Your task to perform on an android device: set the timer Image 0: 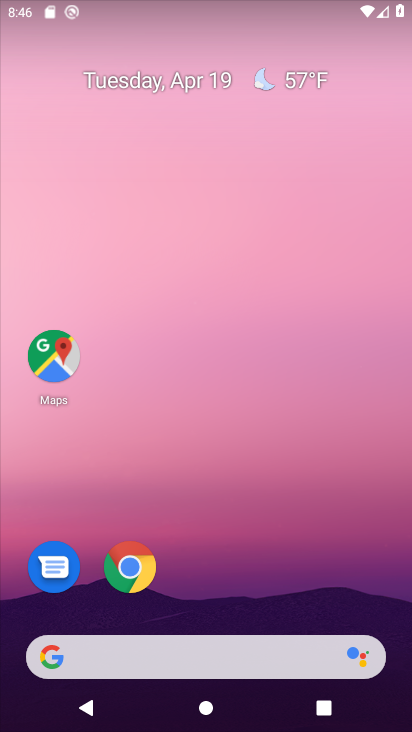
Step 0: drag from (280, 545) to (326, 80)
Your task to perform on an android device: set the timer Image 1: 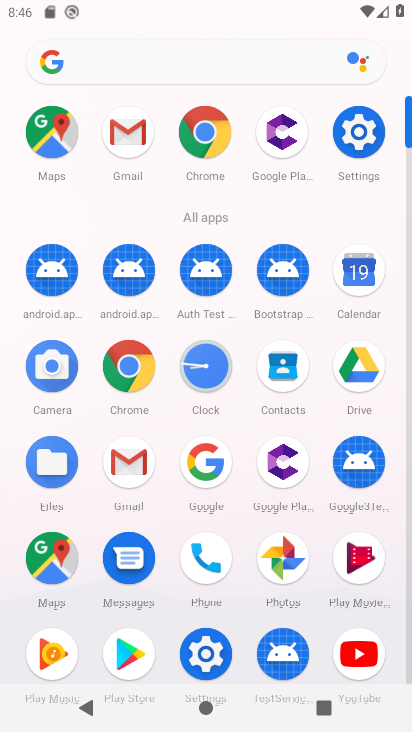
Step 1: click (212, 350)
Your task to perform on an android device: set the timer Image 2: 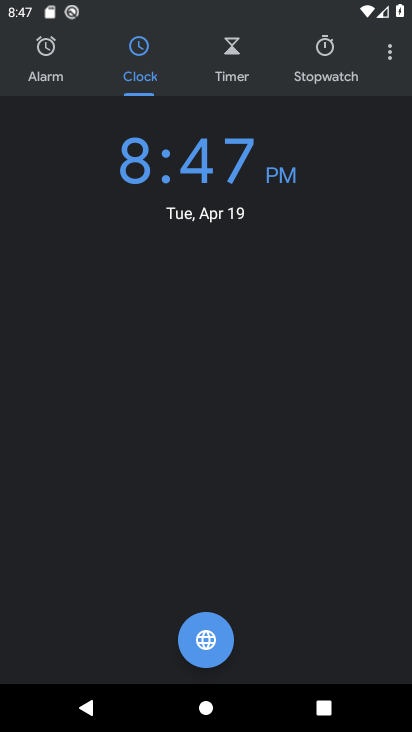
Step 2: click (234, 55)
Your task to perform on an android device: set the timer Image 3: 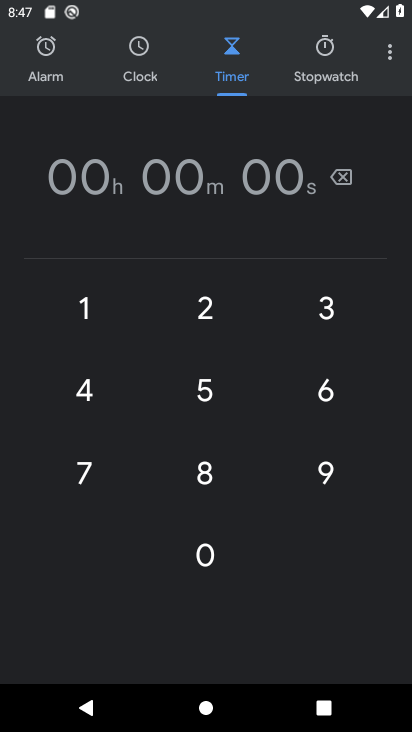
Step 3: click (198, 461)
Your task to perform on an android device: set the timer Image 4: 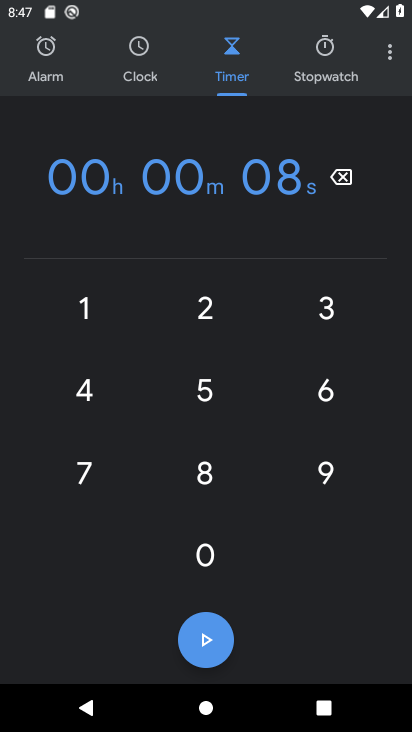
Step 4: click (218, 303)
Your task to perform on an android device: set the timer Image 5: 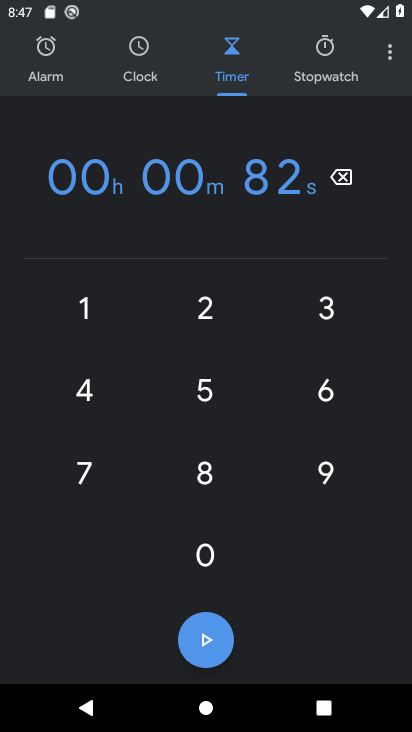
Step 5: click (190, 401)
Your task to perform on an android device: set the timer Image 6: 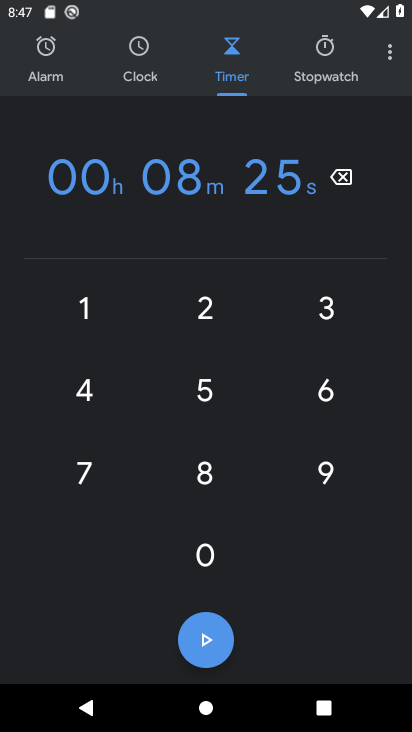
Step 6: click (219, 463)
Your task to perform on an android device: set the timer Image 7: 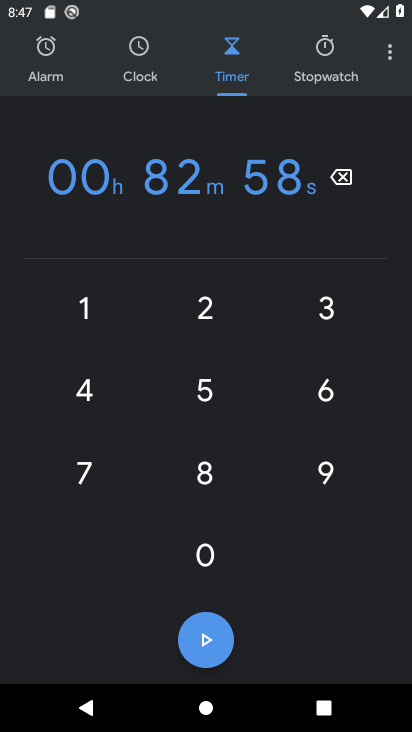
Step 7: click (337, 293)
Your task to perform on an android device: set the timer Image 8: 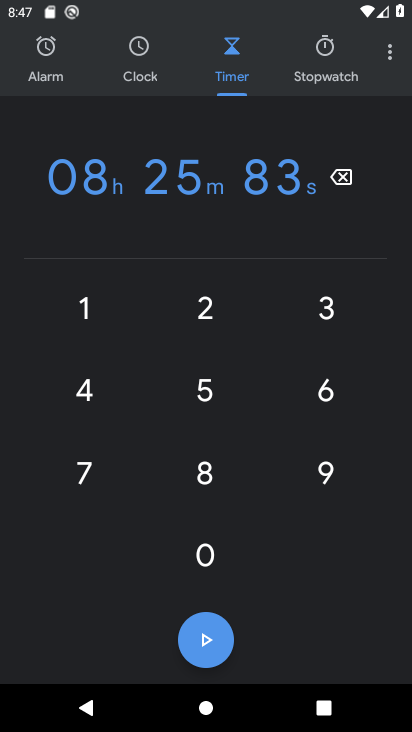
Step 8: click (100, 316)
Your task to perform on an android device: set the timer Image 9: 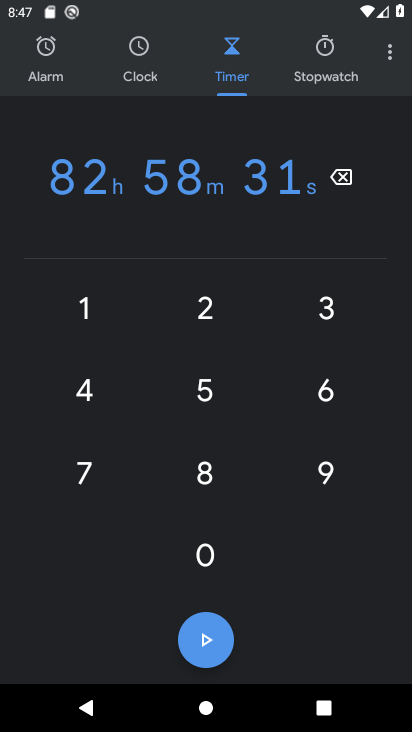
Step 9: click (198, 647)
Your task to perform on an android device: set the timer Image 10: 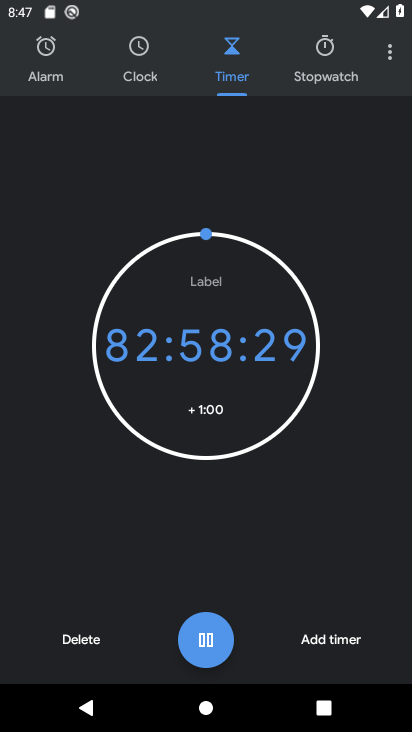
Step 10: task complete